Your task to perform on an android device: install app "ZOOM Cloud Meetings" Image 0: 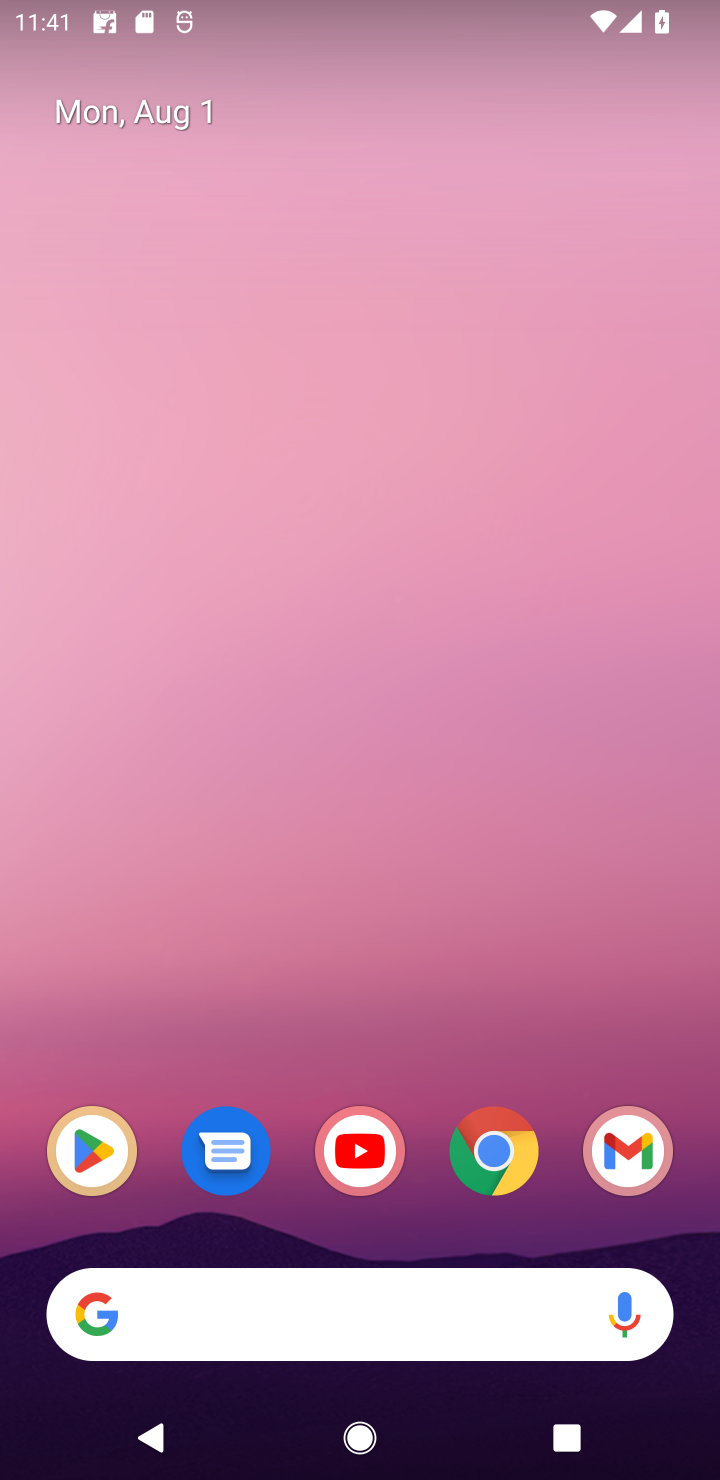
Step 0: click (121, 1163)
Your task to perform on an android device: install app "ZOOM Cloud Meetings" Image 1: 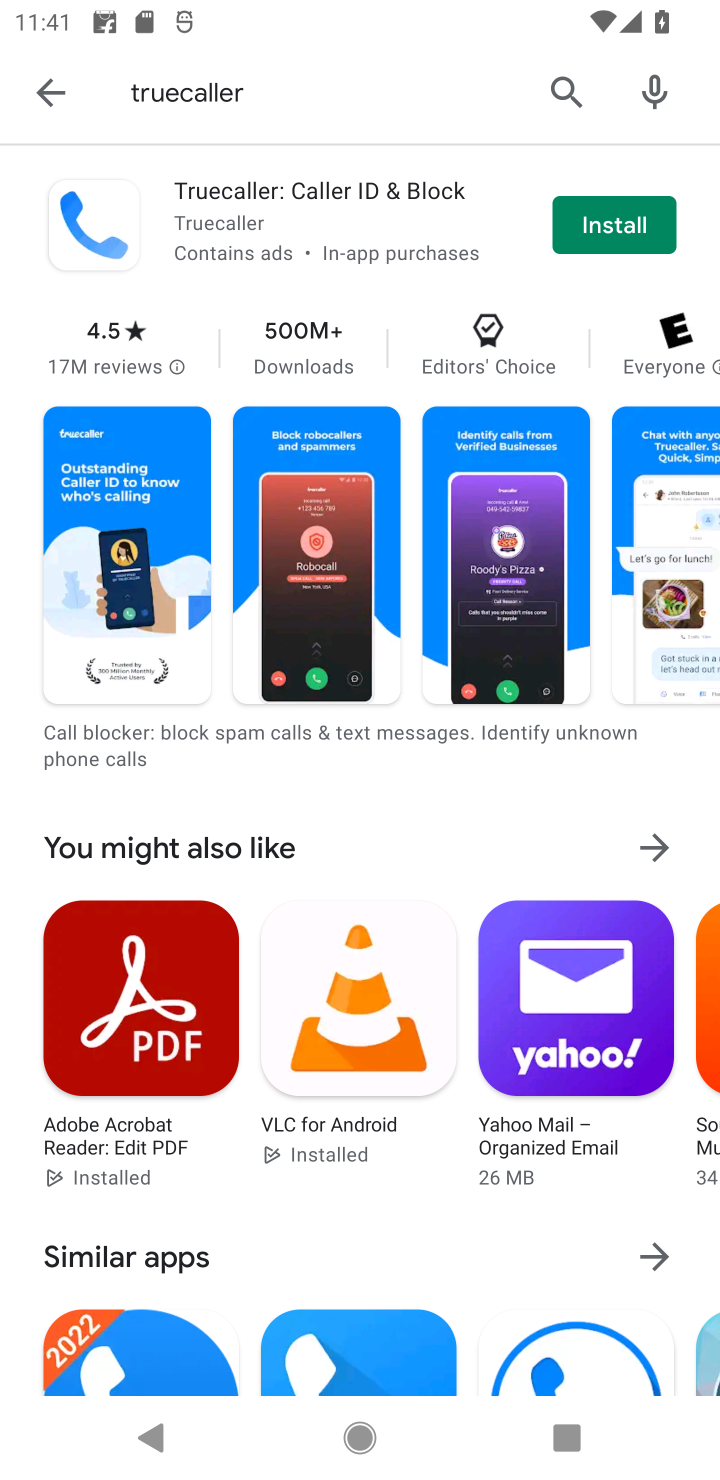
Step 1: click (584, 93)
Your task to perform on an android device: install app "ZOOM Cloud Meetings" Image 2: 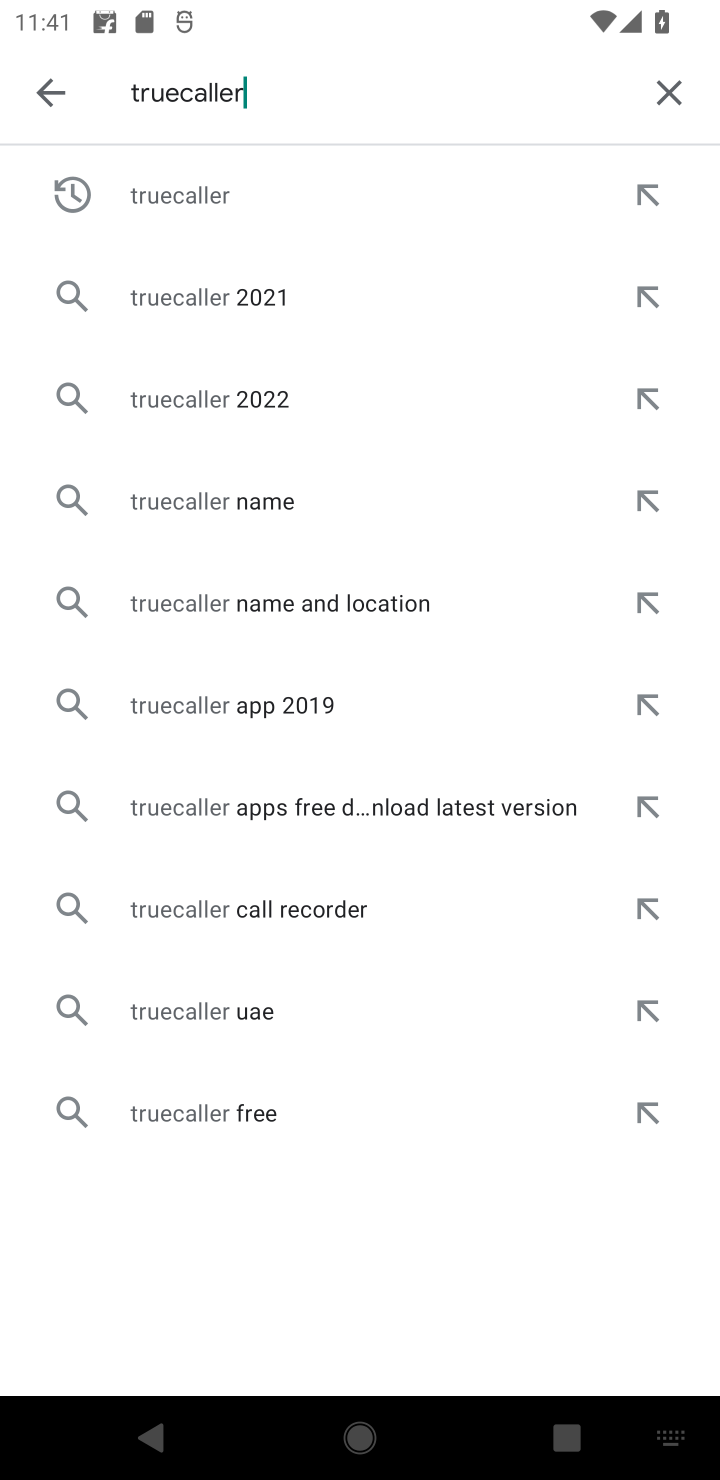
Step 2: click (649, 81)
Your task to perform on an android device: install app "ZOOM Cloud Meetings" Image 3: 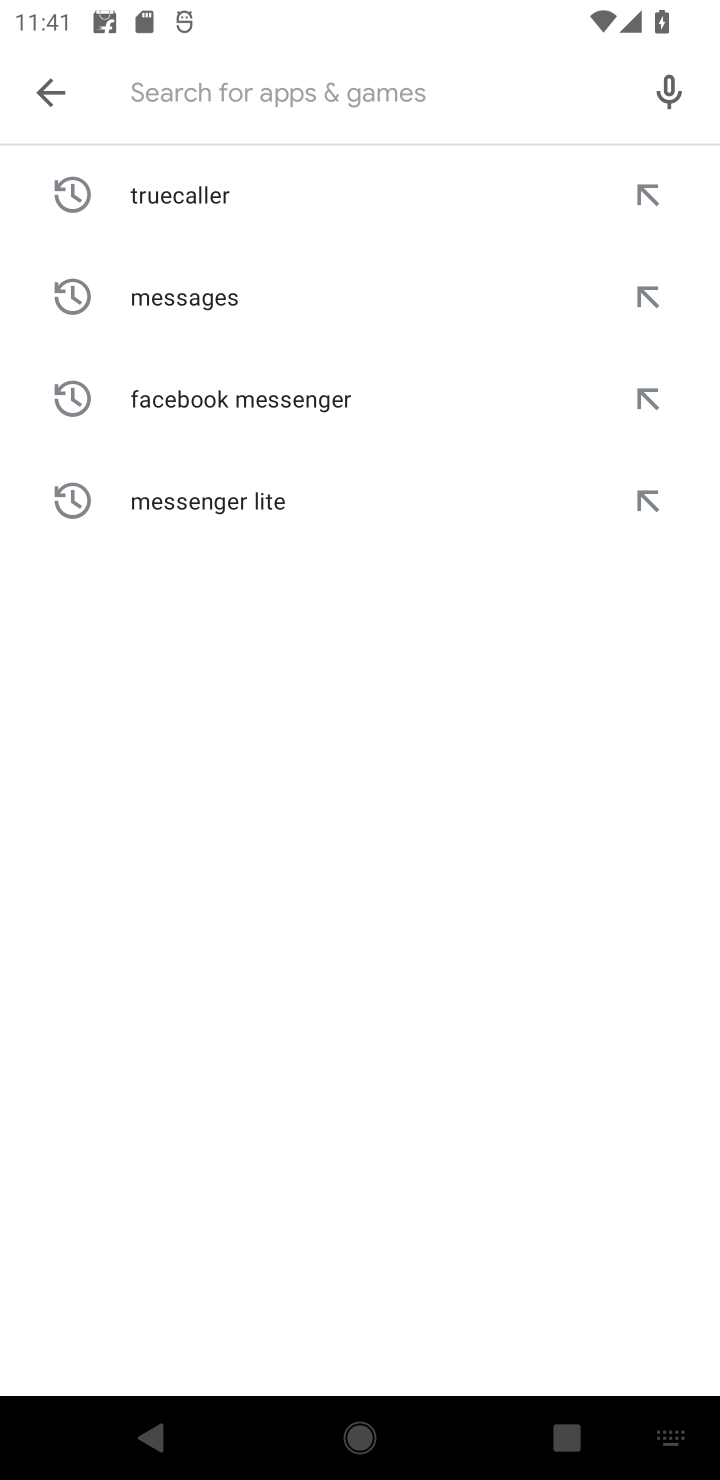
Step 3: type "ZOOM Cloud Meetings"
Your task to perform on an android device: install app "ZOOM Cloud Meetings" Image 4: 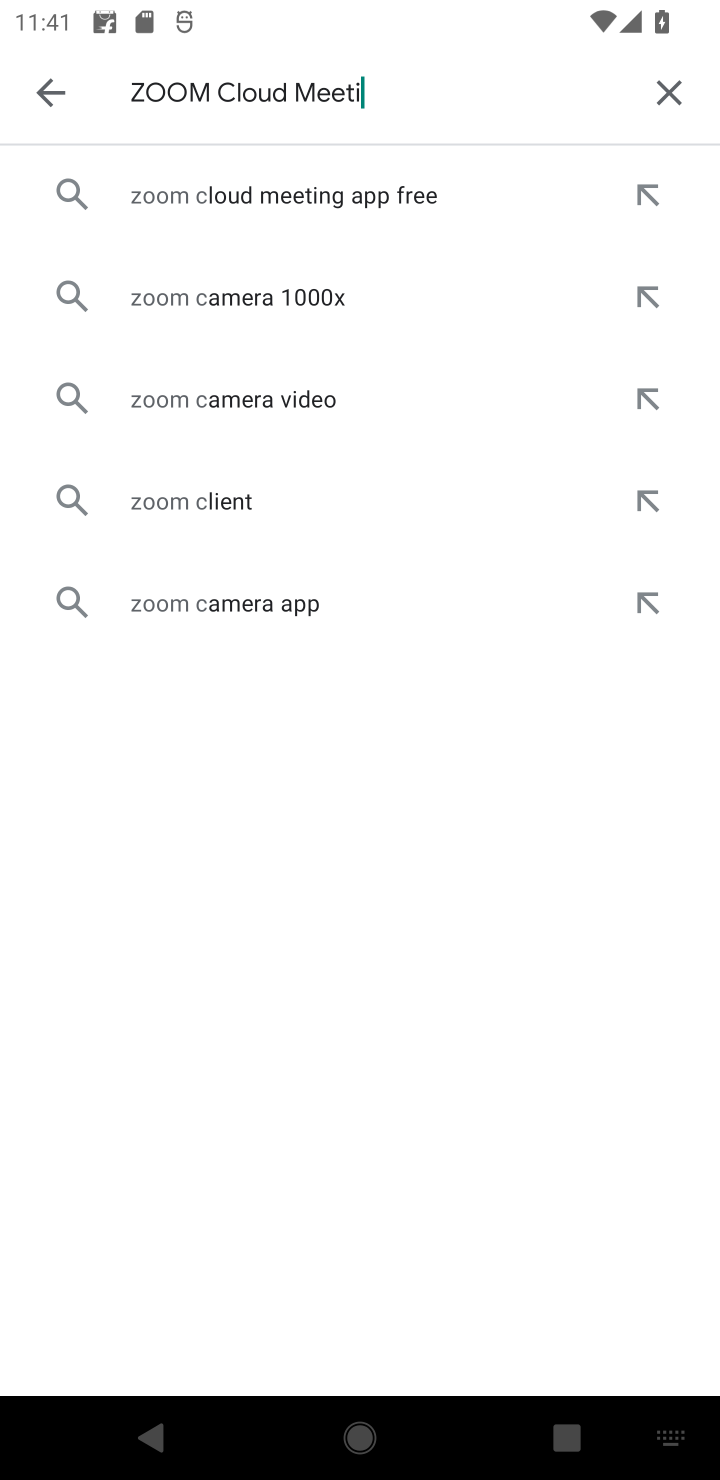
Step 4: type ""
Your task to perform on an android device: install app "ZOOM Cloud Meetings" Image 5: 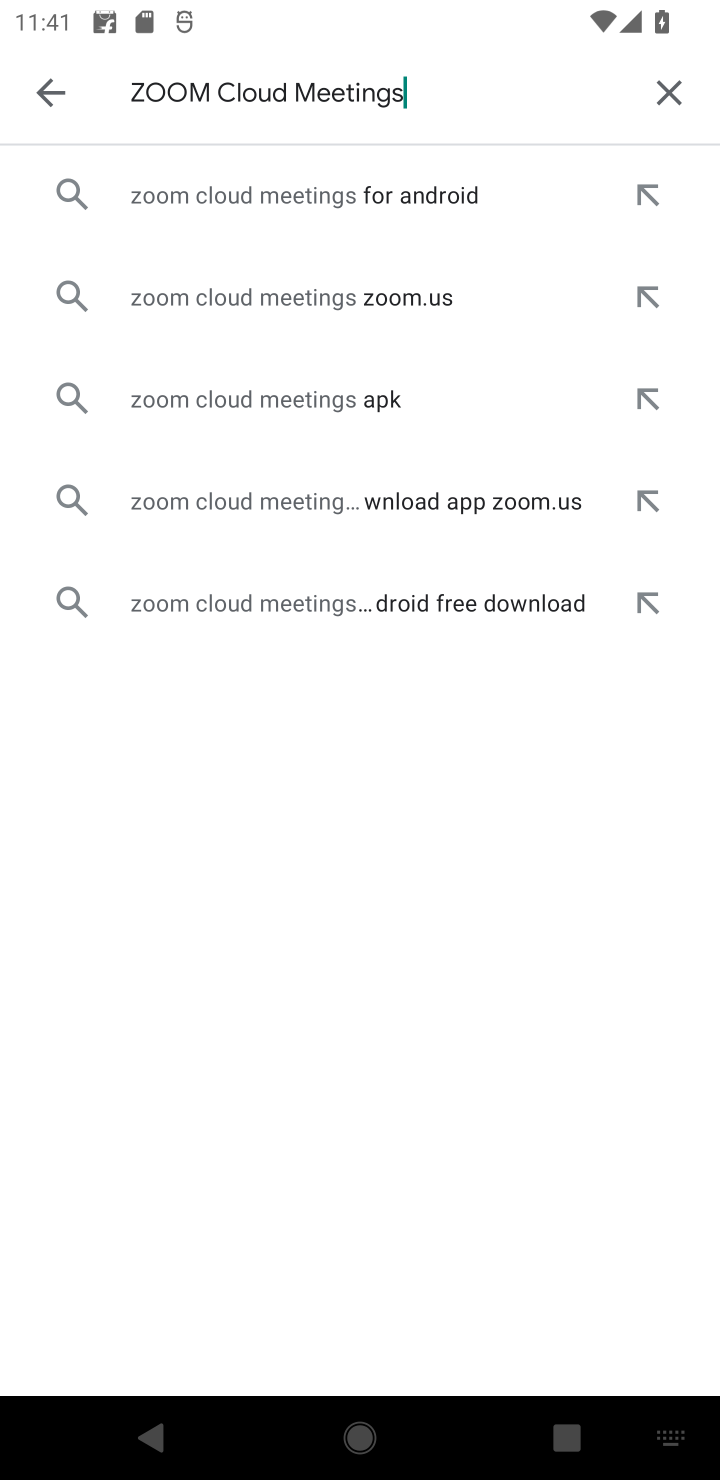
Step 5: click (241, 197)
Your task to perform on an android device: install app "ZOOM Cloud Meetings" Image 6: 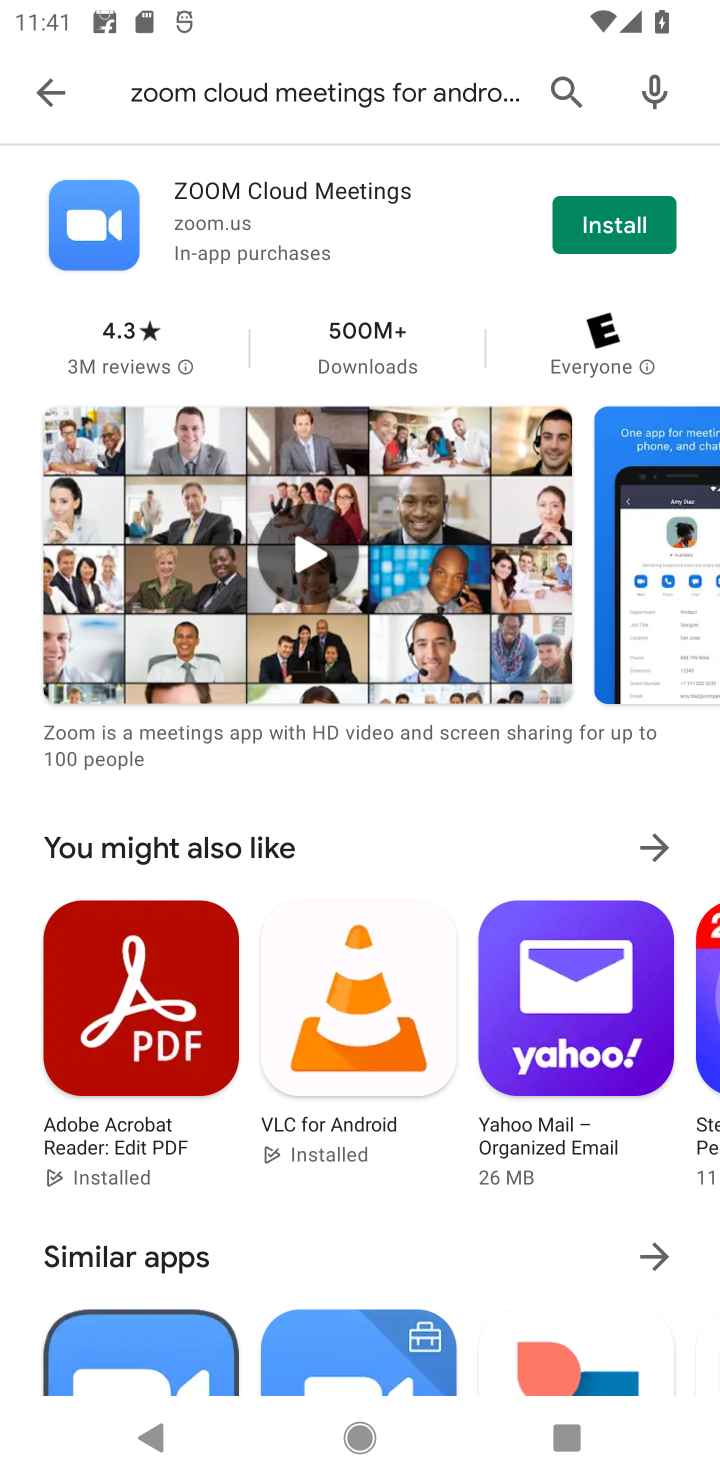
Step 6: click (613, 231)
Your task to perform on an android device: install app "ZOOM Cloud Meetings" Image 7: 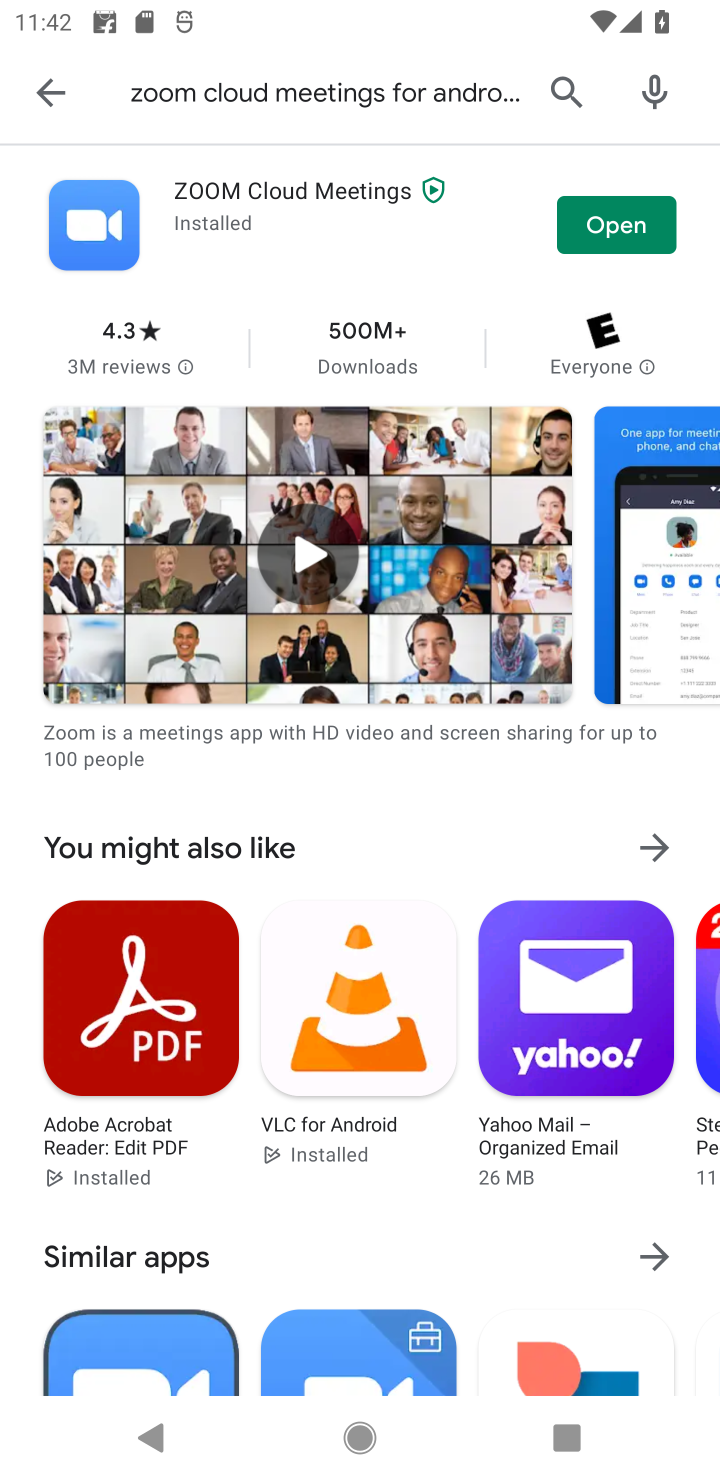
Step 7: task complete